Your task to perform on an android device: Open calendar and show me the fourth week of next month Image 0: 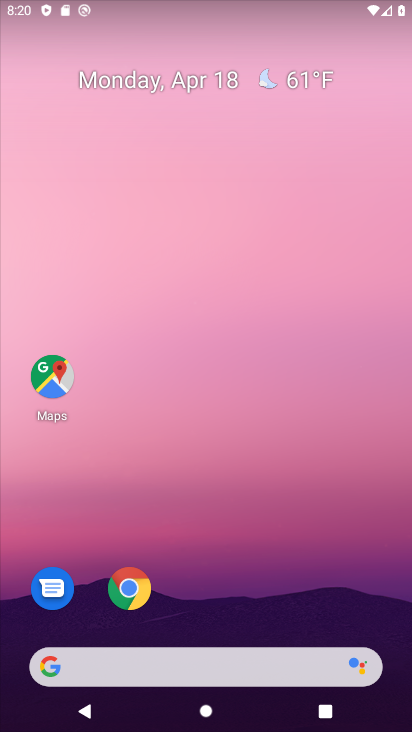
Step 0: drag from (271, 587) to (249, 6)
Your task to perform on an android device: Open calendar and show me the fourth week of next month Image 1: 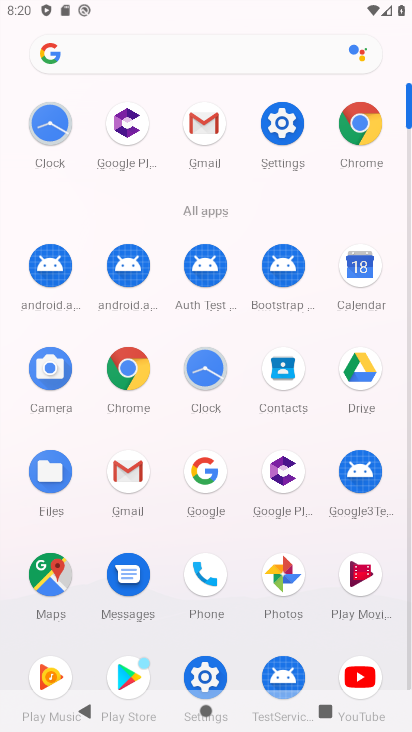
Step 1: click (357, 264)
Your task to perform on an android device: Open calendar and show me the fourth week of next month Image 2: 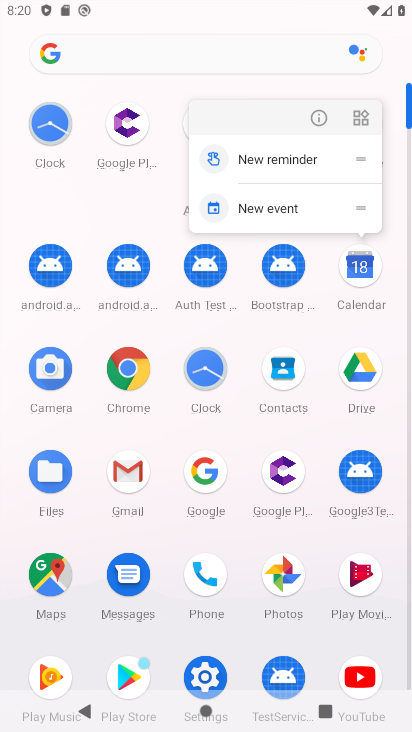
Step 2: click (367, 257)
Your task to perform on an android device: Open calendar and show me the fourth week of next month Image 3: 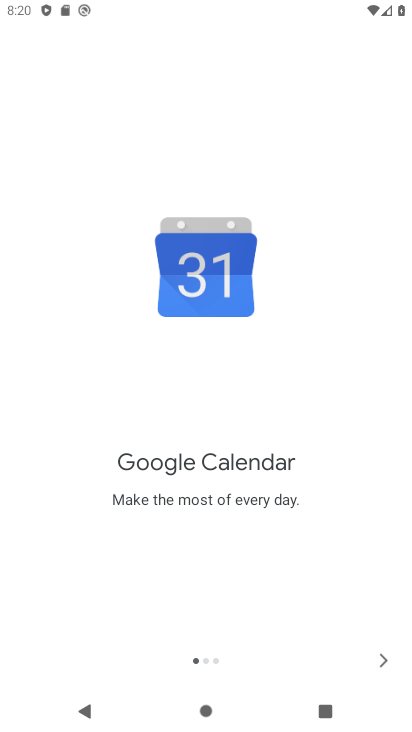
Step 3: click (384, 653)
Your task to perform on an android device: Open calendar and show me the fourth week of next month Image 4: 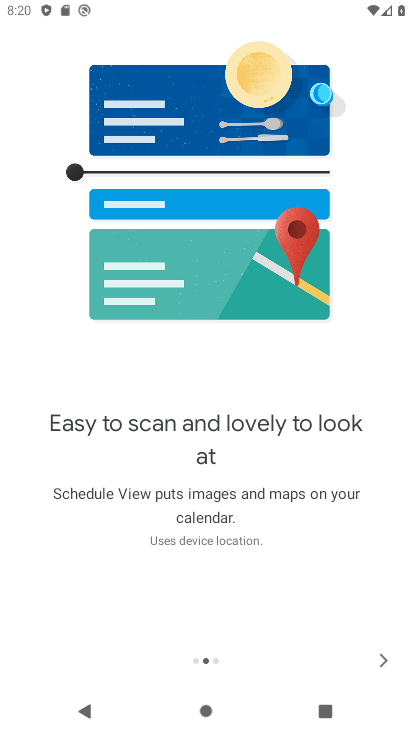
Step 4: click (388, 650)
Your task to perform on an android device: Open calendar and show me the fourth week of next month Image 5: 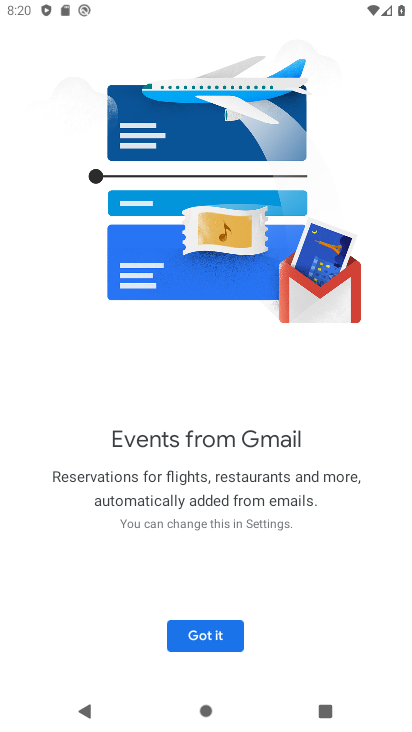
Step 5: click (201, 638)
Your task to perform on an android device: Open calendar and show me the fourth week of next month Image 6: 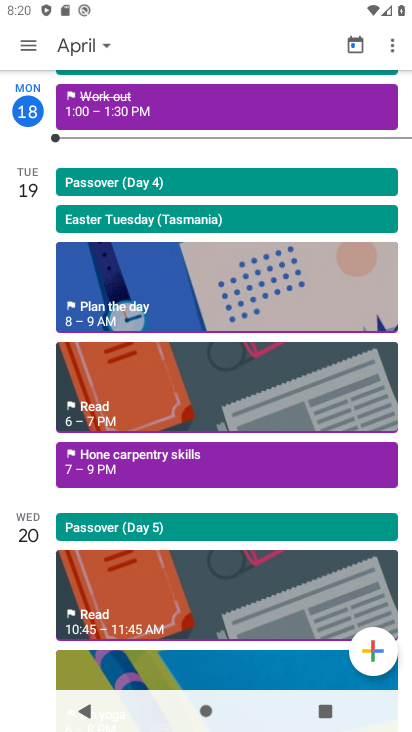
Step 6: click (101, 41)
Your task to perform on an android device: Open calendar and show me the fourth week of next month Image 7: 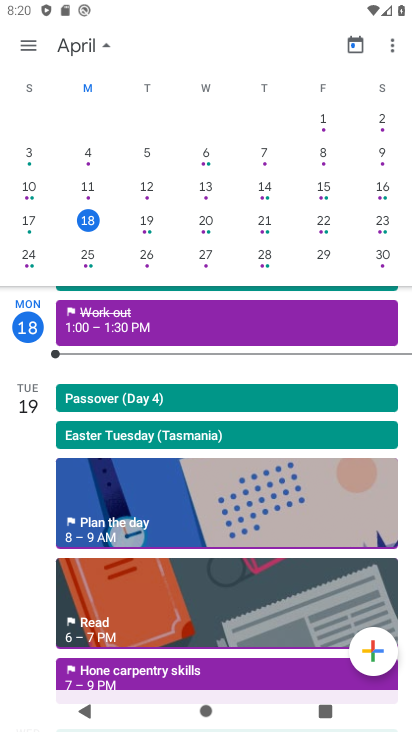
Step 7: drag from (348, 212) to (2, 110)
Your task to perform on an android device: Open calendar and show me the fourth week of next month Image 8: 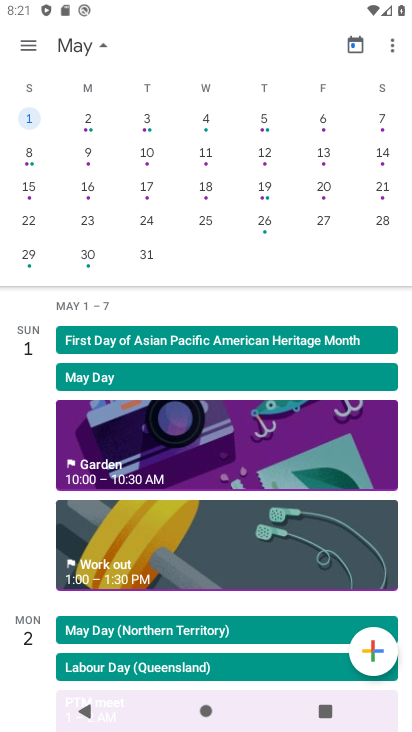
Step 8: click (87, 216)
Your task to perform on an android device: Open calendar and show me the fourth week of next month Image 9: 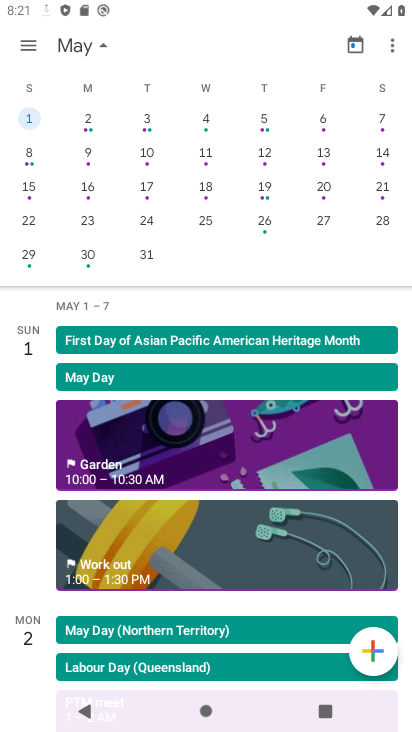
Step 9: click (87, 216)
Your task to perform on an android device: Open calendar and show me the fourth week of next month Image 10: 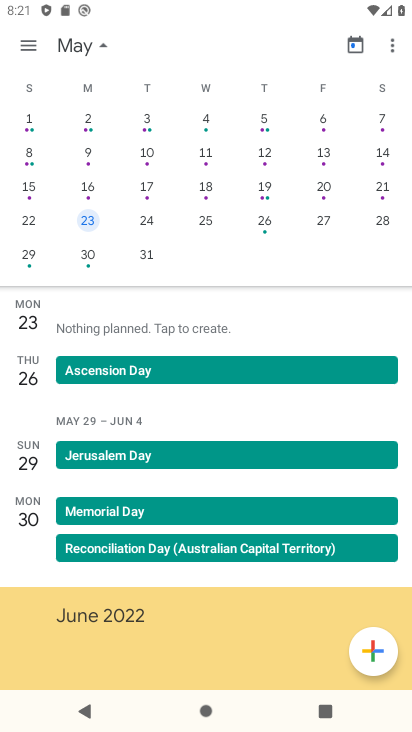
Step 10: click (24, 49)
Your task to perform on an android device: Open calendar and show me the fourth week of next month Image 11: 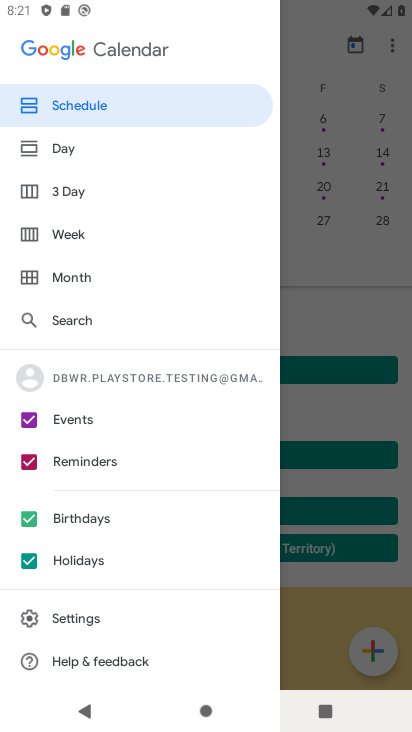
Step 11: click (75, 230)
Your task to perform on an android device: Open calendar and show me the fourth week of next month Image 12: 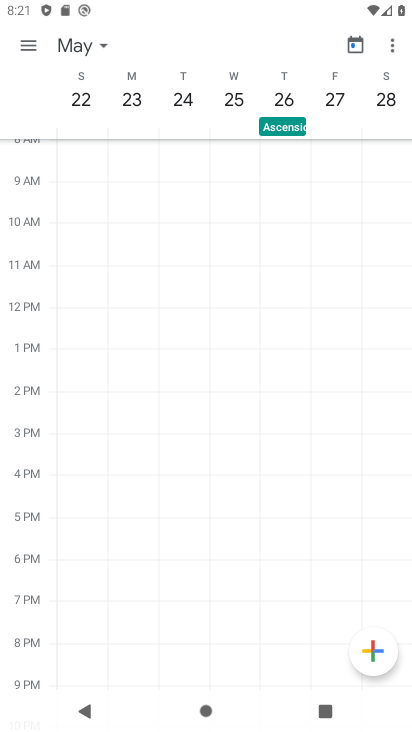
Step 12: task complete